Your task to perform on an android device: Go to Amazon Image 0: 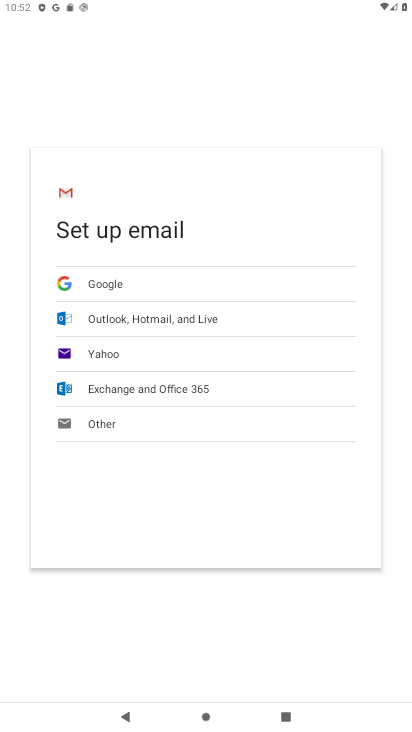
Step 0: press home button
Your task to perform on an android device: Go to Amazon Image 1: 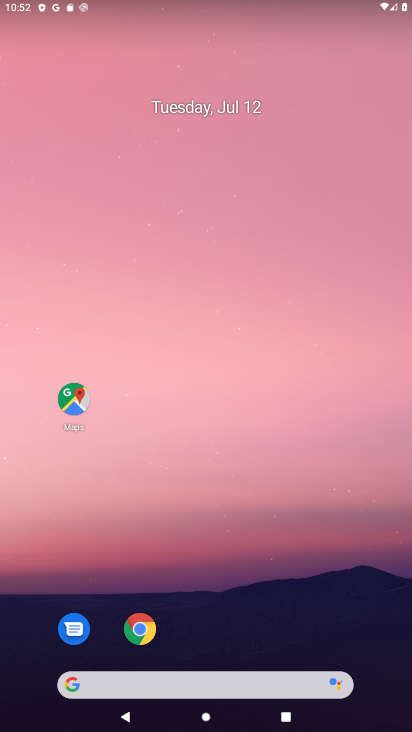
Step 1: drag from (236, 597) to (245, 338)
Your task to perform on an android device: Go to Amazon Image 2: 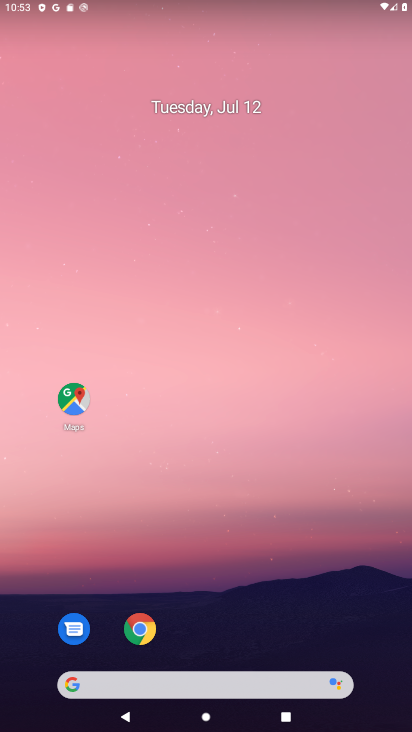
Step 2: drag from (211, 616) to (211, 205)
Your task to perform on an android device: Go to Amazon Image 3: 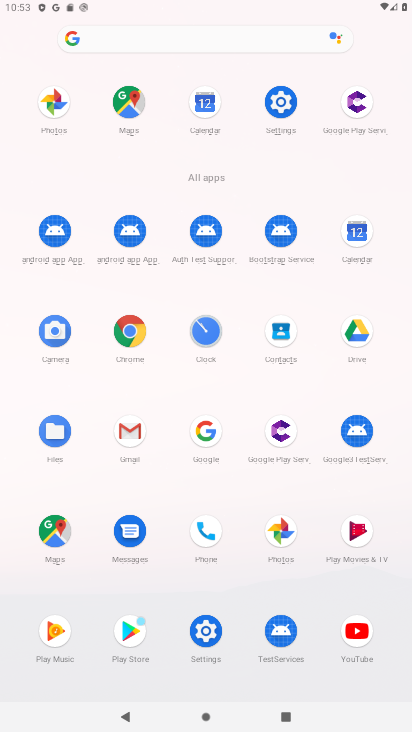
Step 3: click (123, 340)
Your task to perform on an android device: Go to Amazon Image 4: 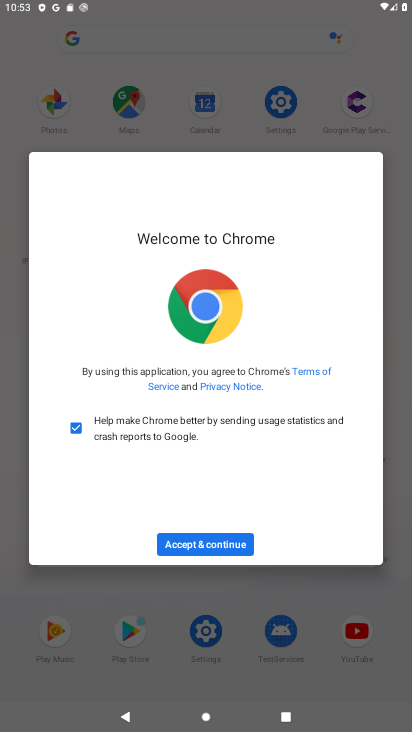
Step 4: click (220, 542)
Your task to perform on an android device: Go to Amazon Image 5: 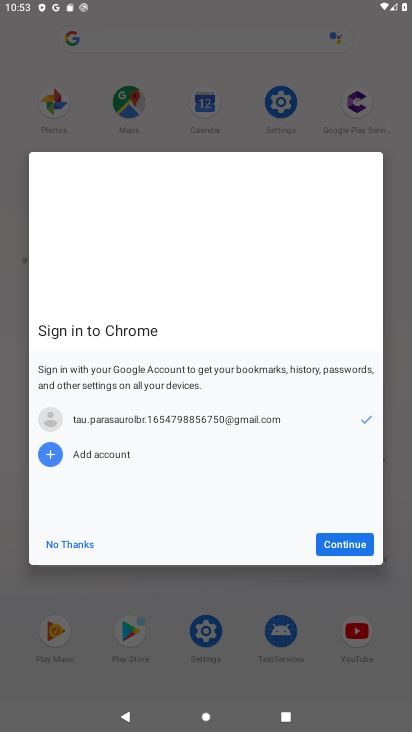
Step 5: click (361, 536)
Your task to perform on an android device: Go to Amazon Image 6: 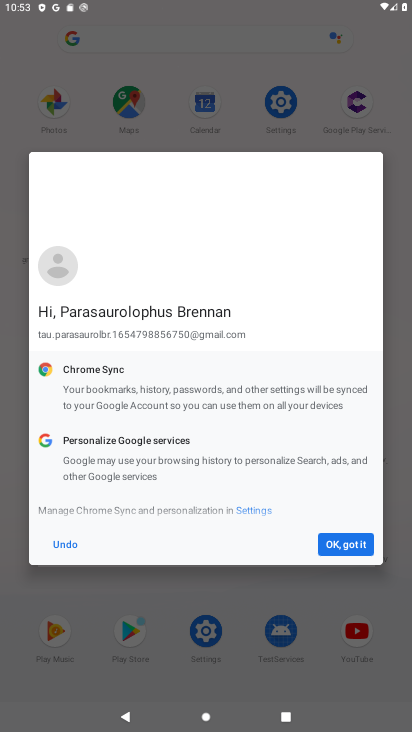
Step 6: click (342, 549)
Your task to perform on an android device: Go to Amazon Image 7: 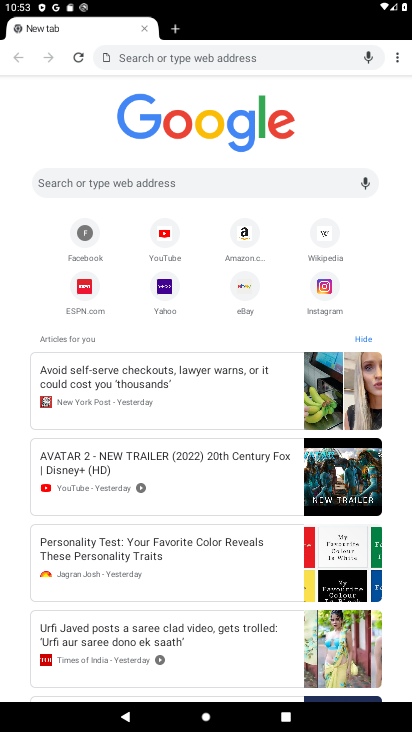
Step 7: click (250, 234)
Your task to perform on an android device: Go to Amazon Image 8: 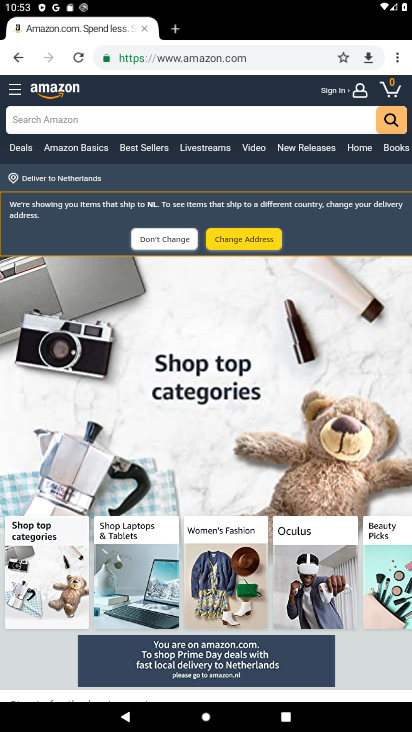
Step 8: task complete